Your task to perform on an android device: Open battery settings Image 0: 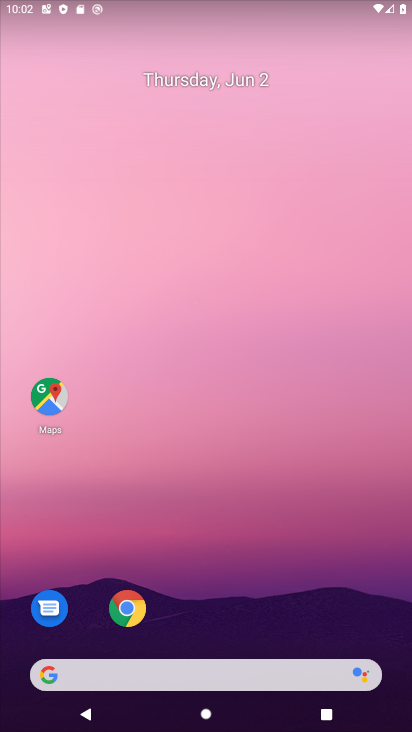
Step 0: drag from (225, 647) to (270, 129)
Your task to perform on an android device: Open battery settings Image 1: 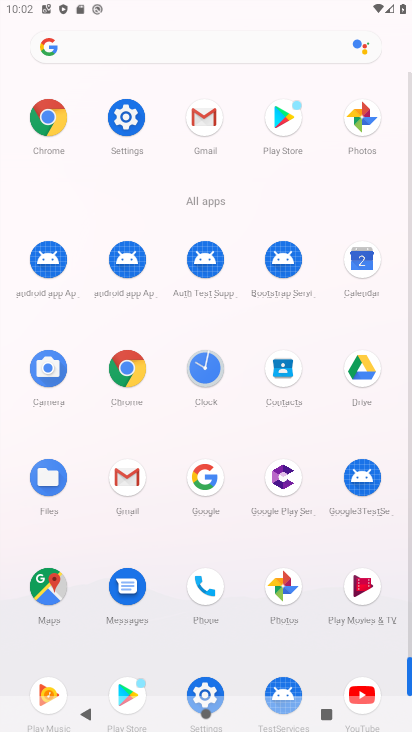
Step 1: drag from (197, 560) to (232, 403)
Your task to perform on an android device: Open battery settings Image 2: 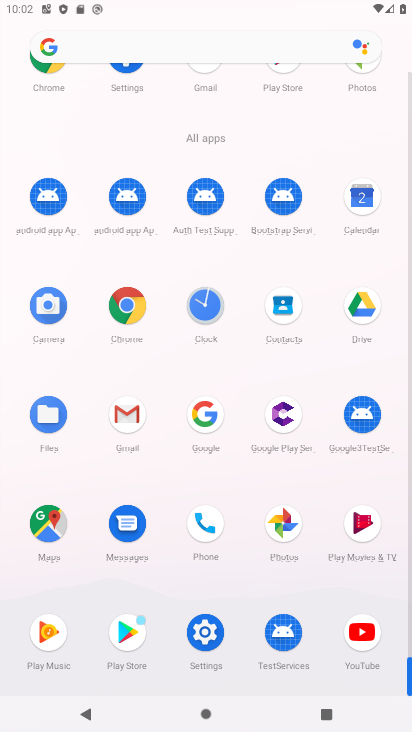
Step 2: click (203, 630)
Your task to perform on an android device: Open battery settings Image 3: 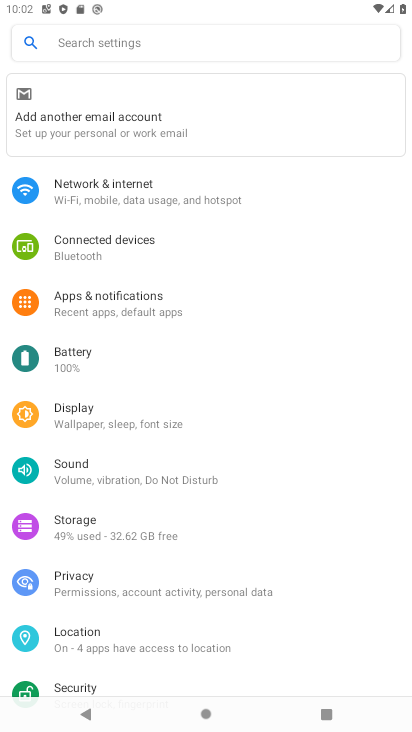
Step 3: click (149, 371)
Your task to perform on an android device: Open battery settings Image 4: 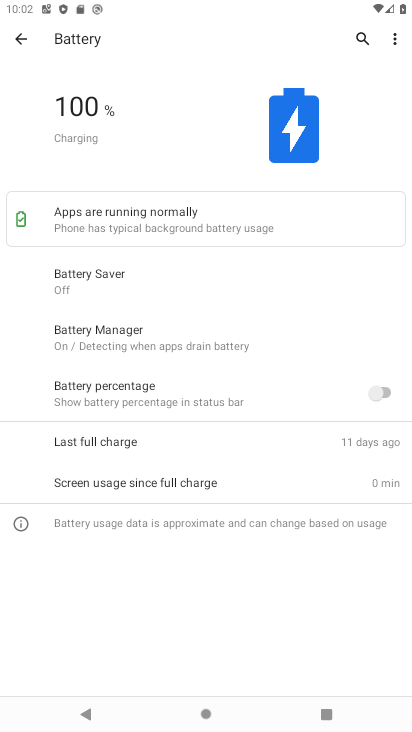
Step 4: task complete